Your task to perform on an android device: show emergency info Image 0: 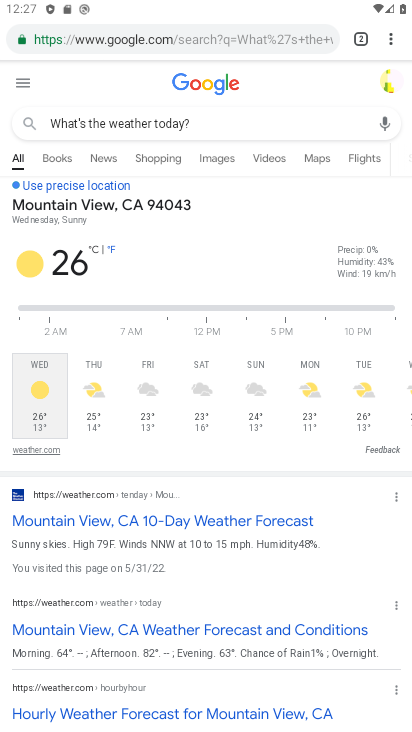
Step 0: press home button
Your task to perform on an android device: show emergency info Image 1: 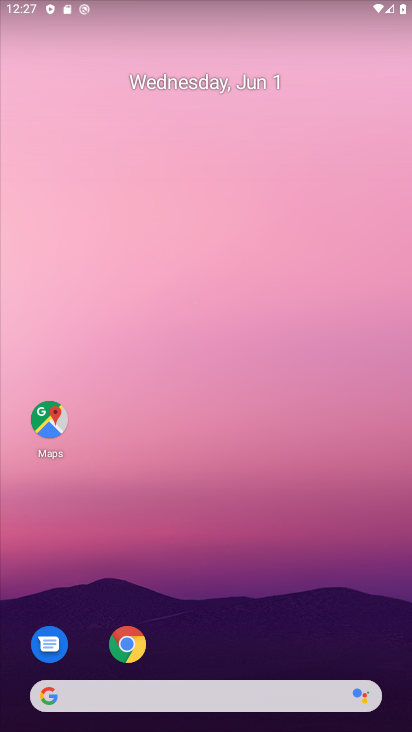
Step 1: drag from (351, 636) to (252, 155)
Your task to perform on an android device: show emergency info Image 2: 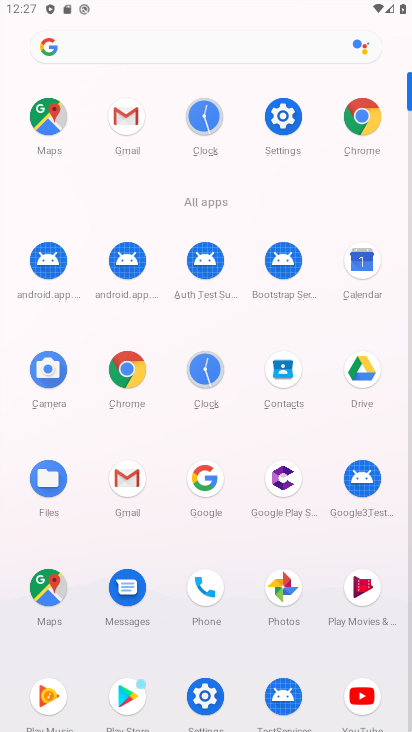
Step 2: click (294, 142)
Your task to perform on an android device: show emergency info Image 3: 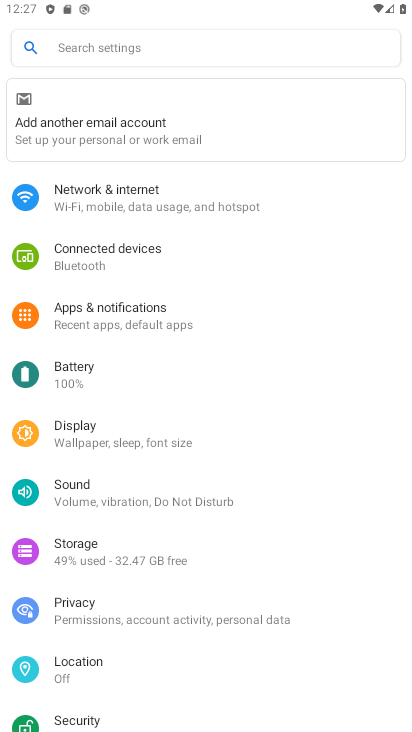
Step 3: drag from (184, 548) to (88, 249)
Your task to perform on an android device: show emergency info Image 4: 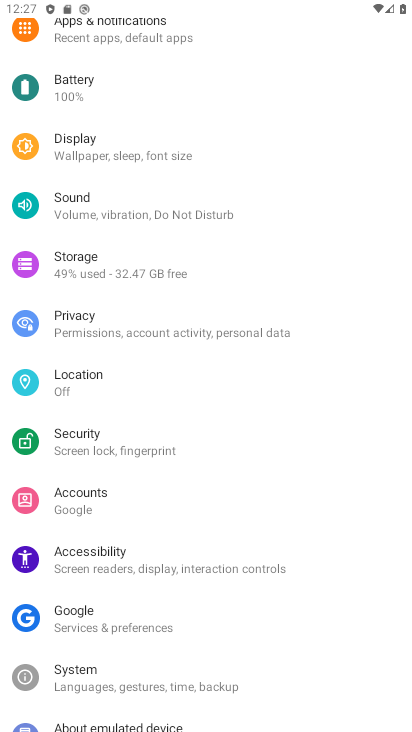
Step 4: drag from (240, 131) to (247, 13)
Your task to perform on an android device: show emergency info Image 5: 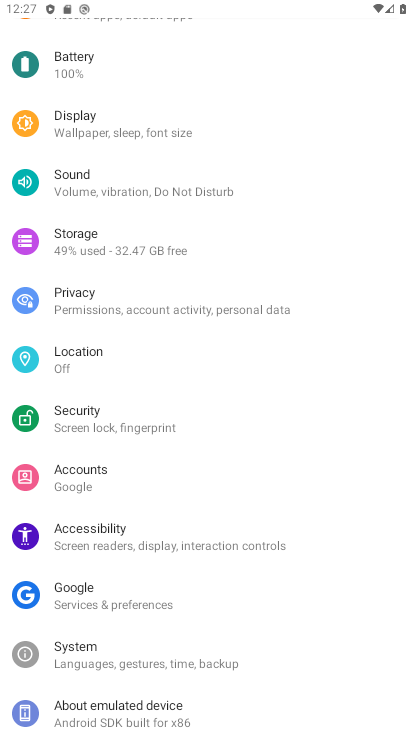
Step 5: click (70, 704)
Your task to perform on an android device: show emergency info Image 6: 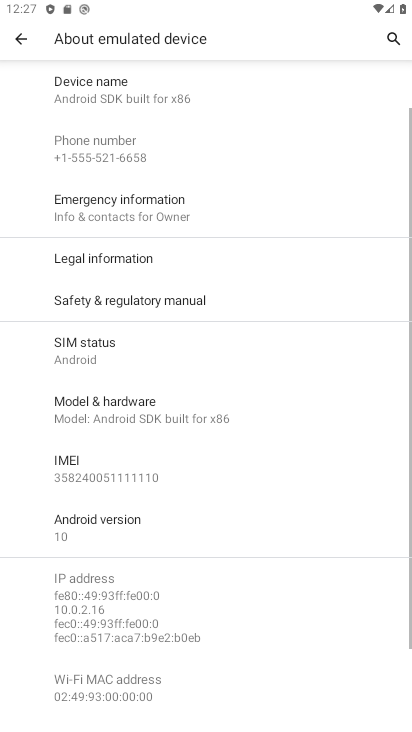
Step 6: click (164, 203)
Your task to perform on an android device: show emergency info Image 7: 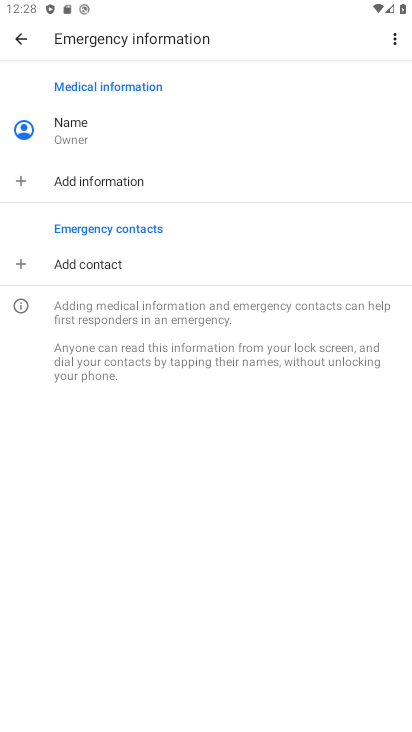
Step 7: task complete